Your task to perform on an android device: clear history in the chrome app Image 0: 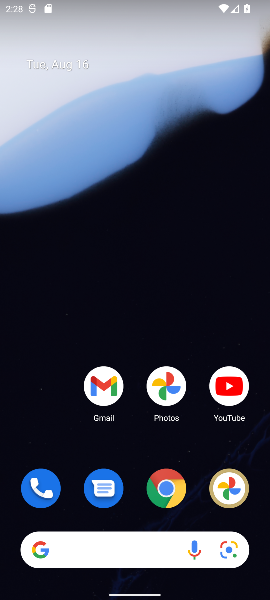
Step 0: drag from (119, 335) to (135, 105)
Your task to perform on an android device: clear history in the chrome app Image 1: 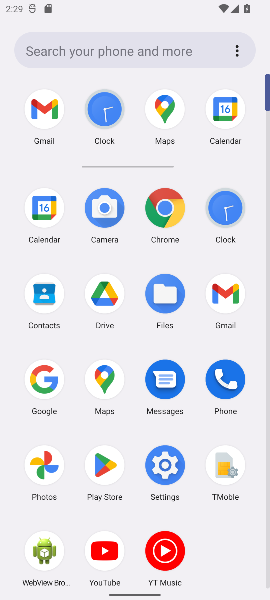
Step 1: click (158, 207)
Your task to perform on an android device: clear history in the chrome app Image 2: 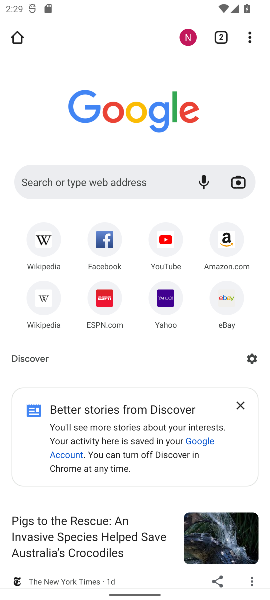
Step 2: task complete